Your task to perform on an android device: What's the weather going to be this weekend? Image 0: 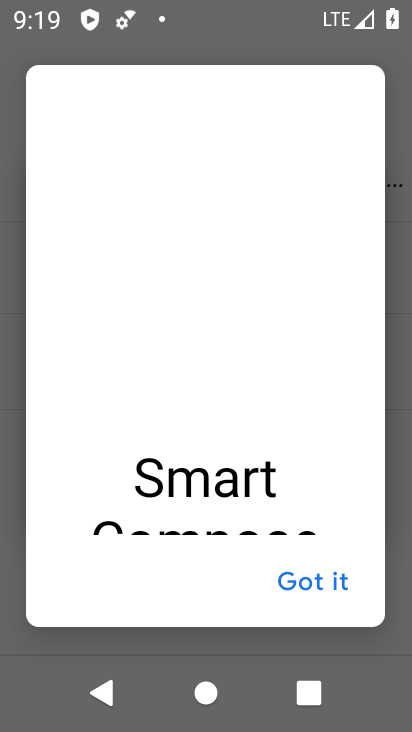
Step 0: press back button
Your task to perform on an android device: What's the weather going to be this weekend? Image 1: 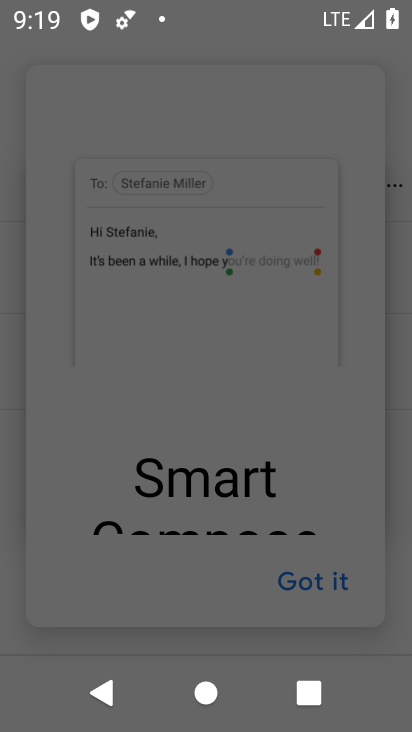
Step 1: press home button
Your task to perform on an android device: What's the weather going to be this weekend? Image 2: 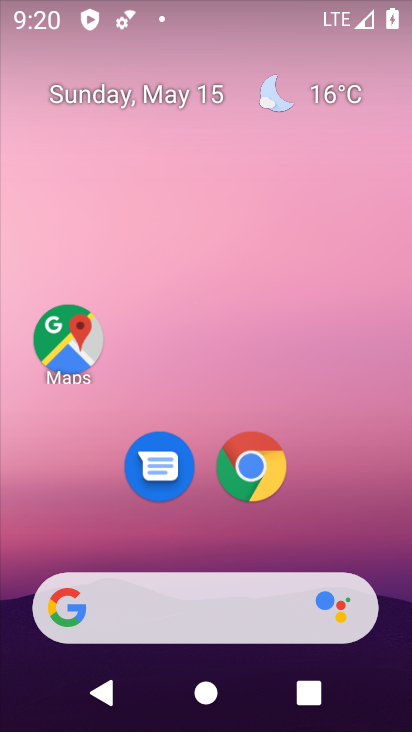
Step 2: click (321, 109)
Your task to perform on an android device: What's the weather going to be this weekend? Image 3: 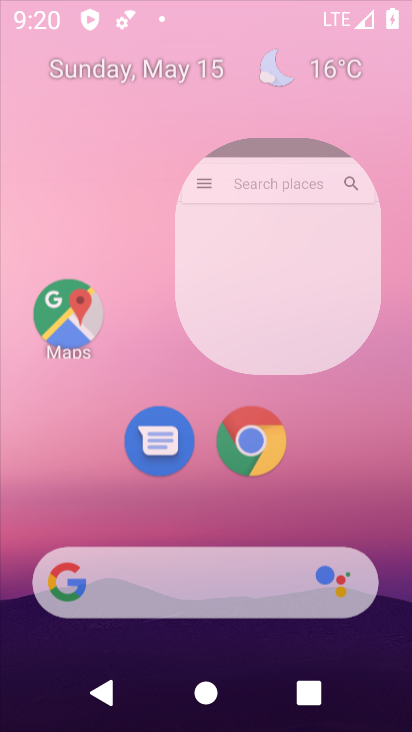
Step 3: click (304, 100)
Your task to perform on an android device: What's the weather going to be this weekend? Image 4: 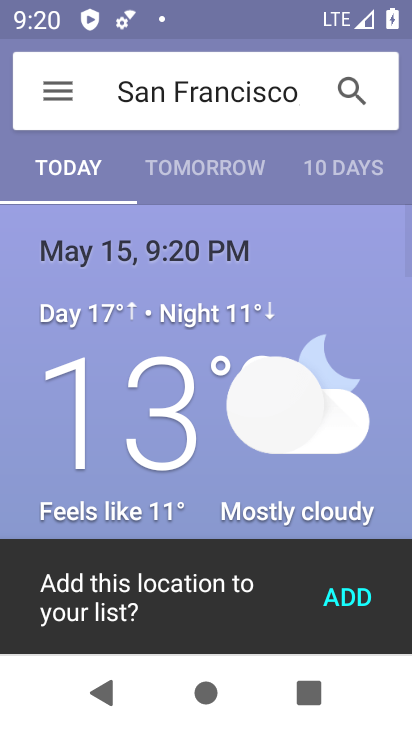
Step 4: click (363, 183)
Your task to perform on an android device: What's the weather going to be this weekend? Image 5: 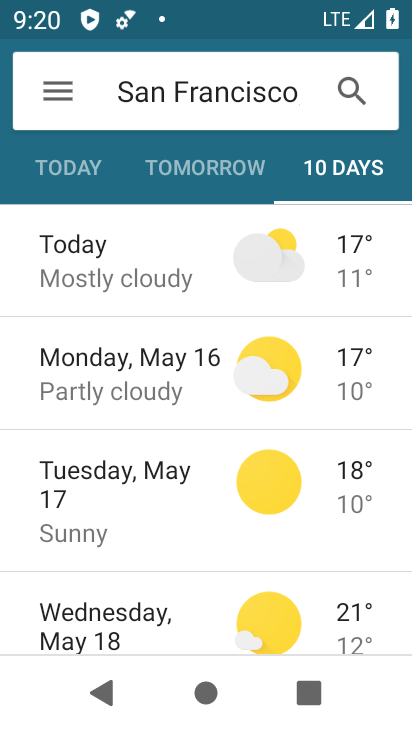
Step 5: task complete